Your task to perform on an android device: Search for Mexican restaurants on Maps Image 0: 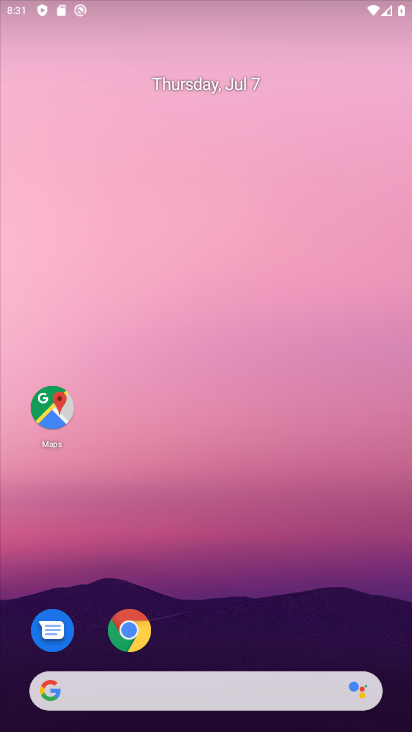
Step 0: click (175, 347)
Your task to perform on an android device: Search for Mexican restaurants on Maps Image 1: 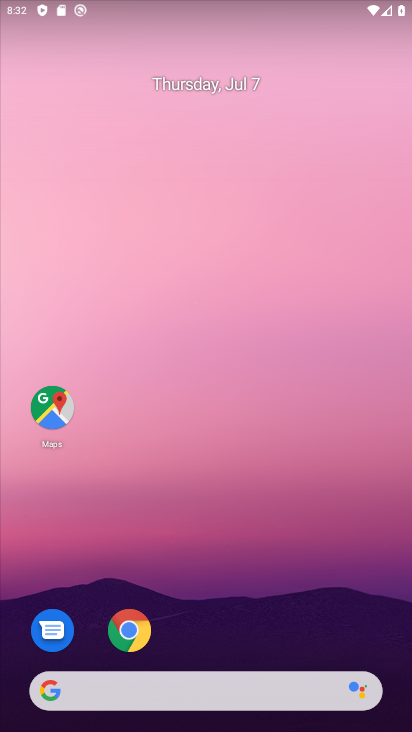
Step 1: drag from (191, 674) to (148, 111)
Your task to perform on an android device: Search for Mexican restaurants on Maps Image 2: 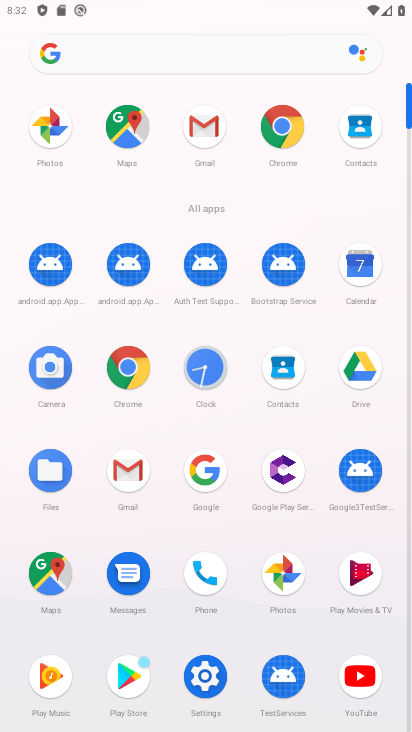
Step 2: click (61, 580)
Your task to perform on an android device: Search for Mexican restaurants on Maps Image 3: 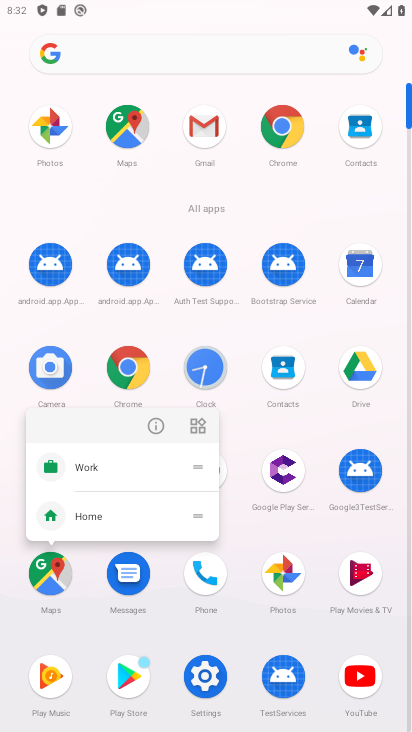
Step 3: click (149, 427)
Your task to perform on an android device: Search for Mexican restaurants on Maps Image 4: 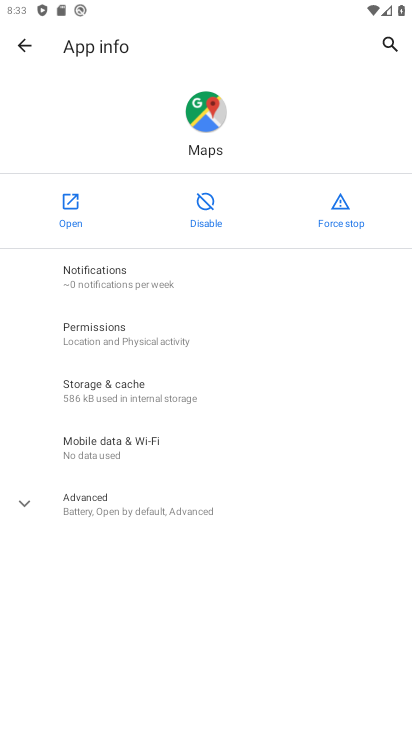
Step 4: click (77, 224)
Your task to perform on an android device: Search for Mexican restaurants on Maps Image 5: 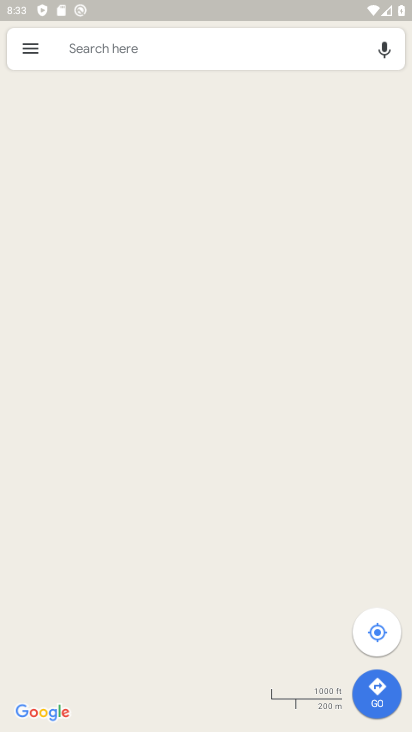
Step 5: click (112, 50)
Your task to perform on an android device: Search for Mexican restaurants on Maps Image 6: 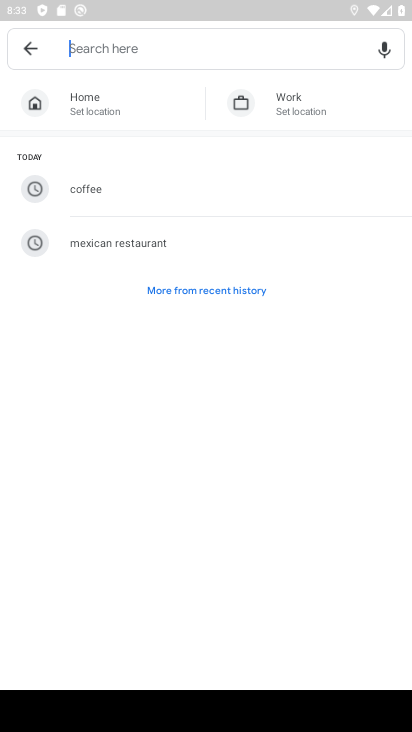
Step 6: type "Mexican restaurants"
Your task to perform on an android device: Search for Mexican restaurants on Maps Image 7: 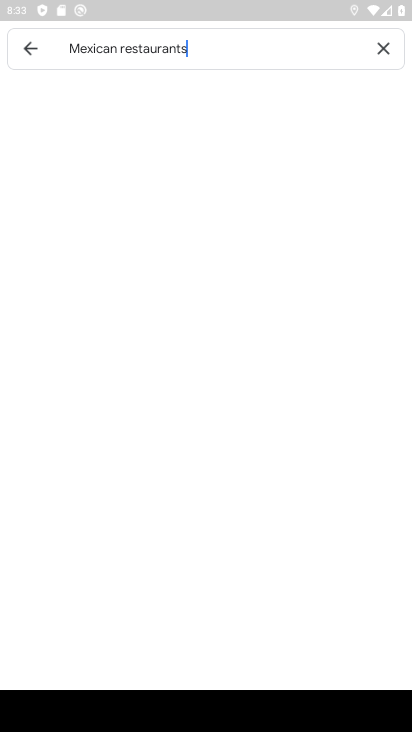
Step 7: type ""
Your task to perform on an android device: Search for Mexican restaurants on Maps Image 8: 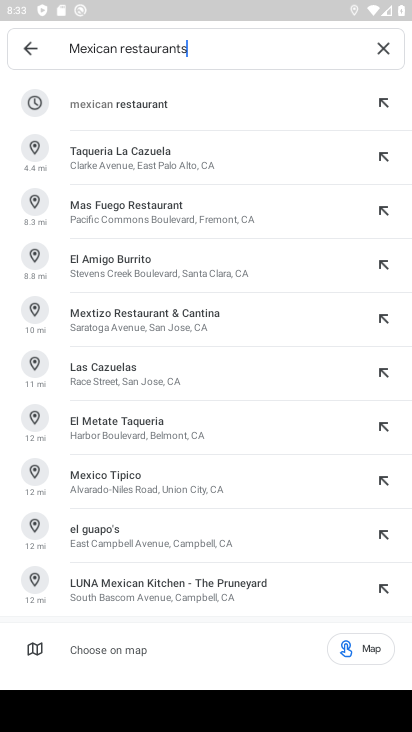
Step 8: click (131, 113)
Your task to perform on an android device: Search for Mexican restaurants on Maps Image 9: 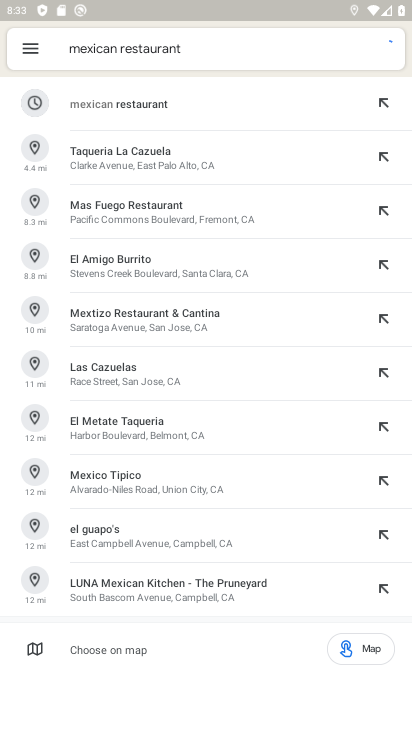
Step 9: task complete